Your task to perform on an android device: set default search engine in the chrome app Image 0: 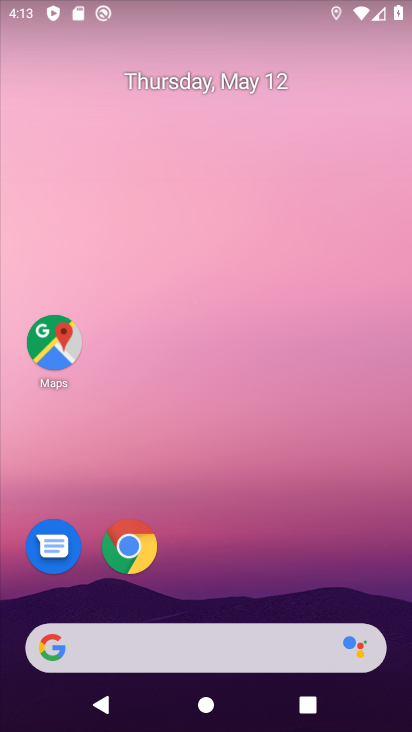
Step 0: drag from (230, 552) to (205, 71)
Your task to perform on an android device: set default search engine in the chrome app Image 1: 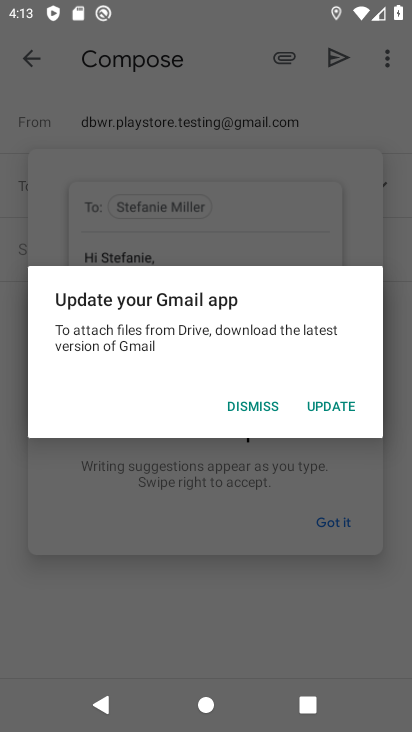
Step 1: drag from (6, 545) to (7, 366)
Your task to perform on an android device: set default search engine in the chrome app Image 2: 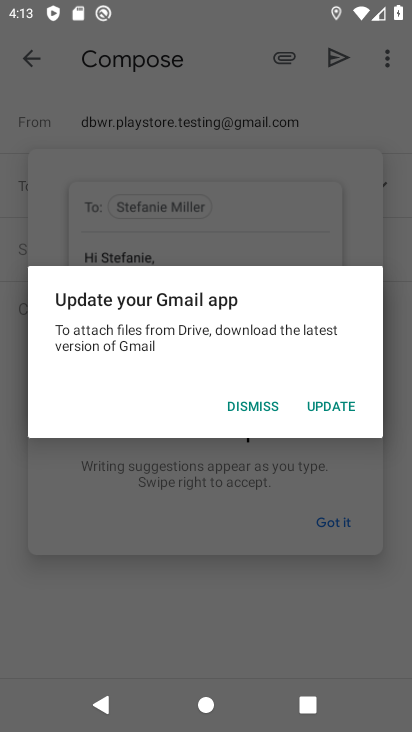
Step 2: press back button
Your task to perform on an android device: set default search engine in the chrome app Image 3: 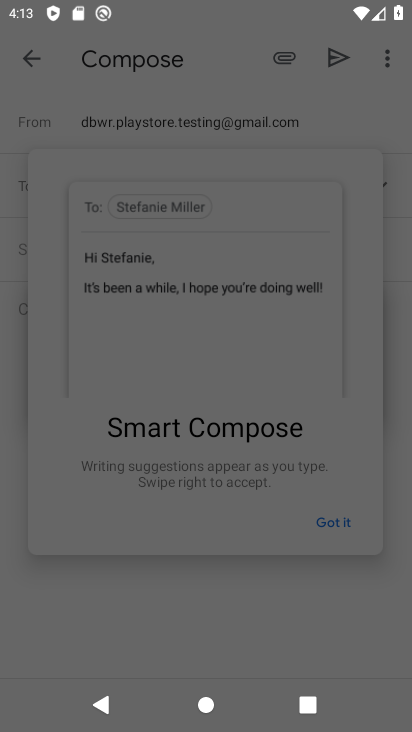
Step 3: press back button
Your task to perform on an android device: set default search engine in the chrome app Image 4: 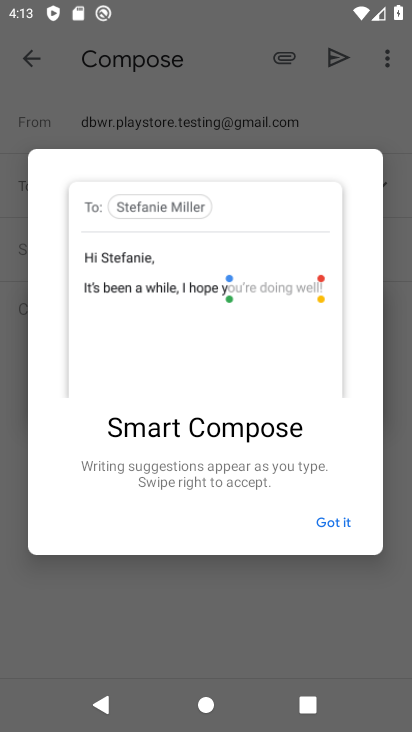
Step 4: press home button
Your task to perform on an android device: set default search engine in the chrome app Image 5: 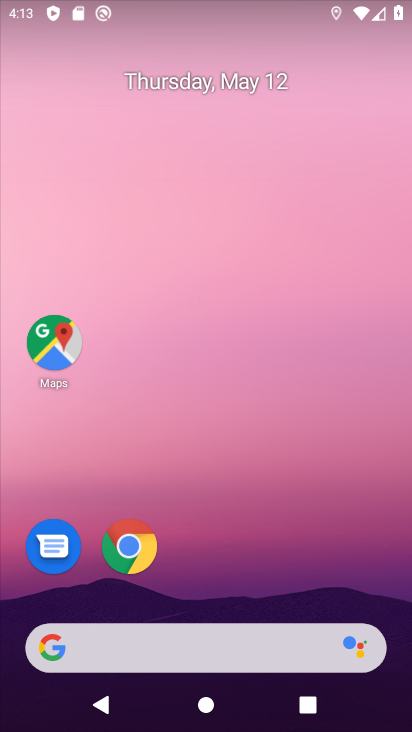
Step 5: drag from (233, 514) to (223, 41)
Your task to perform on an android device: set default search engine in the chrome app Image 6: 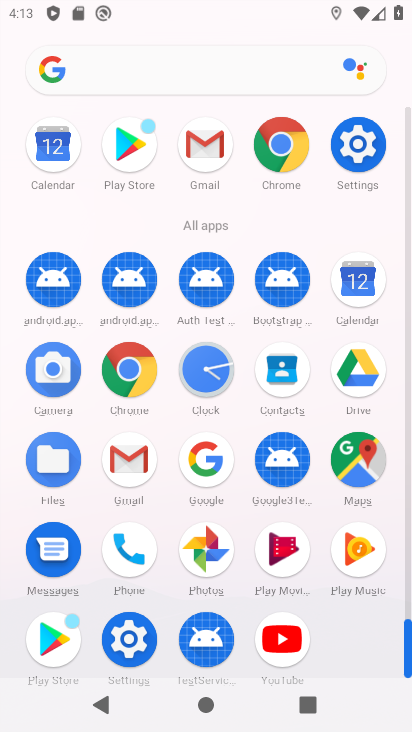
Step 6: drag from (4, 485) to (4, 186)
Your task to perform on an android device: set default search engine in the chrome app Image 7: 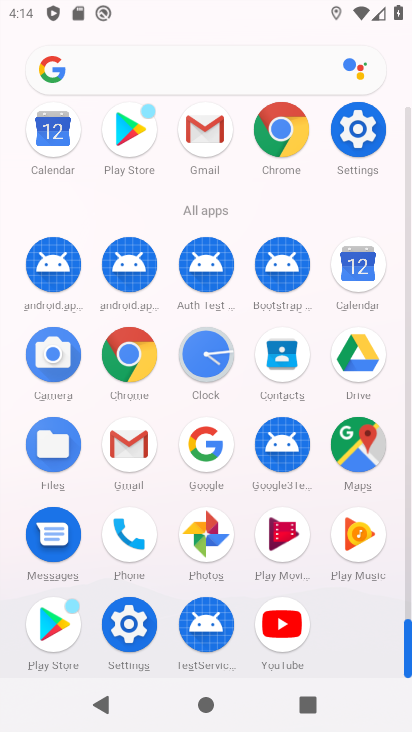
Step 7: click (128, 353)
Your task to perform on an android device: set default search engine in the chrome app Image 8: 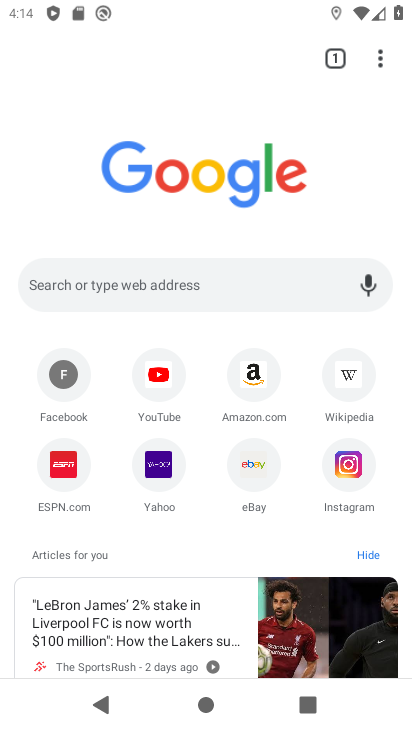
Step 8: drag from (379, 55) to (176, 486)
Your task to perform on an android device: set default search engine in the chrome app Image 9: 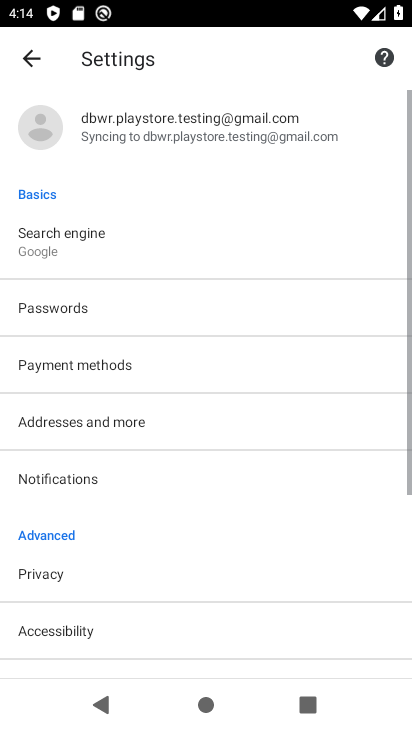
Step 9: click (85, 231)
Your task to perform on an android device: set default search engine in the chrome app Image 10: 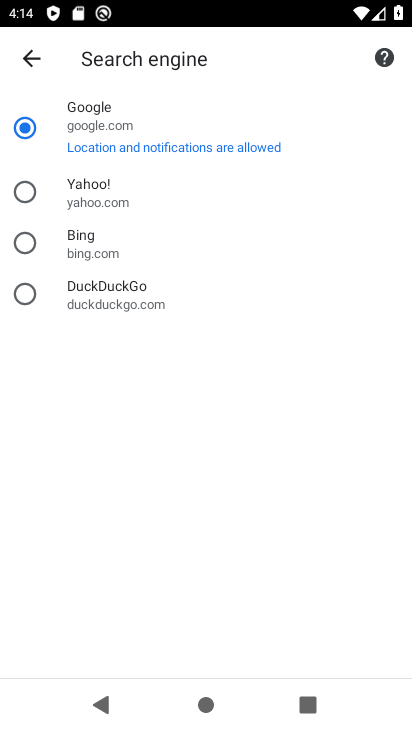
Step 10: click (92, 286)
Your task to perform on an android device: set default search engine in the chrome app Image 11: 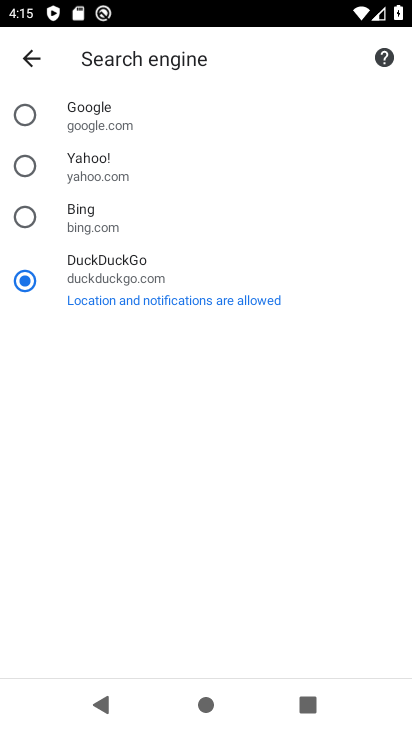
Step 11: task complete